Your task to perform on an android device: Clear the shopping cart on newegg.com. Add logitech g pro to the cart on newegg.com Image 0: 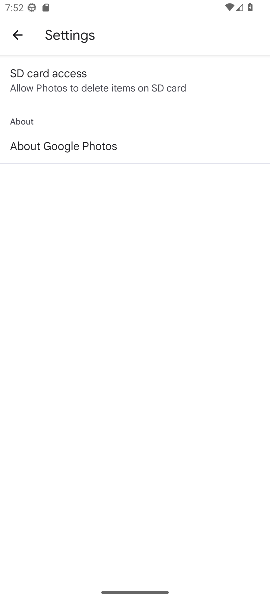
Step 0: press home button
Your task to perform on an android device: Clear the shopping cart on newegg.com. Add logitech g pro to the cart on newegg.com Image 1: 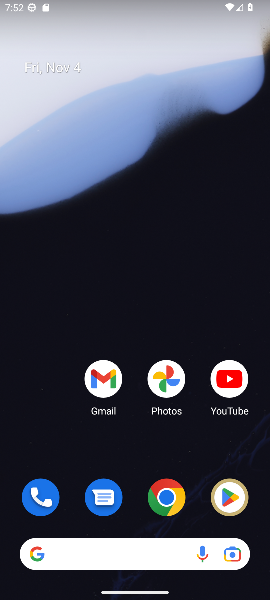
Step 1: click (172, 501)
Your task to perform on an android device: Clear the shopping cart on newegg.com. Add logitech g pro to the cart on newegg.com Image 2: 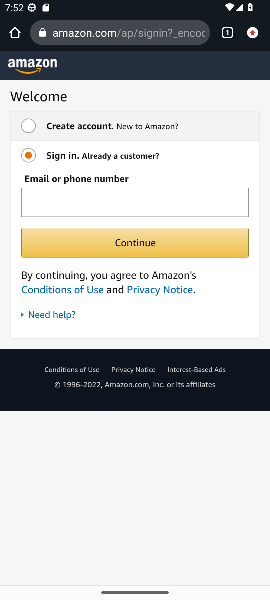
Step 2: click (81, 38)
Your task to perform on an android device: Clear the shopping cart on newegg.com. Add logitech g pro to the cart on newegg.com Image 3: 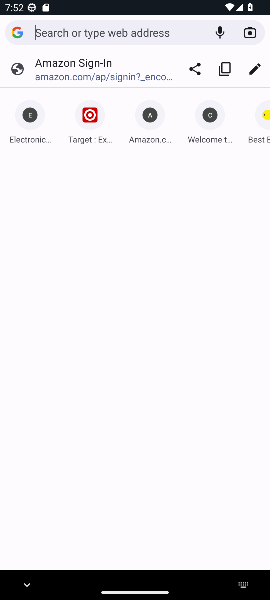
Step 3: type "newegg.com"
Your task to perform on an android device: Clear the shopping cart on newegg.com. Add logitech g pro to the cart on newegg.com Image 4: 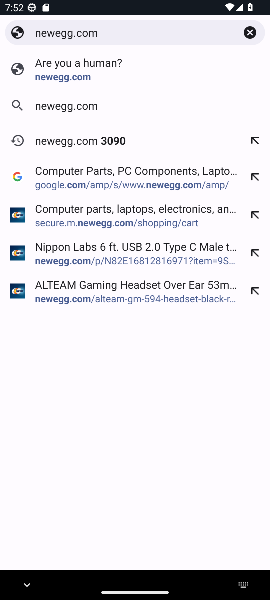
Step 4: click (59, 106)
Your task to perform on an android device: Clear the shopping cart on newegg.com. Add logitech g pro to the cart on newegg.com Image 5: 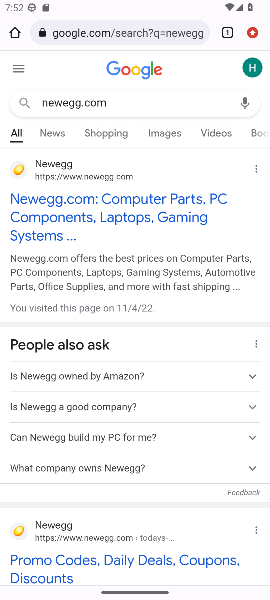
Step 5: click (86, 225)
Your task to perform on an android device: Clear the shopping cart on newegg.com. Add logitech g pro to the cart on newegg.com Image 6: 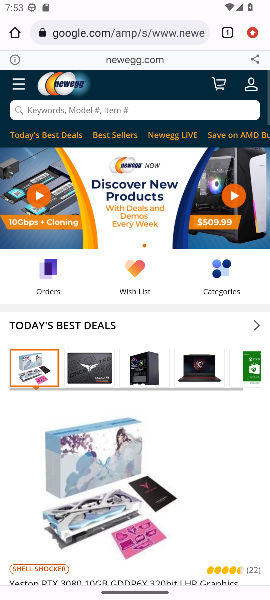
Step 6: click (86, 115)
Your task to perform on an android device: Clear the shopping cart on newegg.com. Add logitech g pro to the cart on newegg.com Image 7: 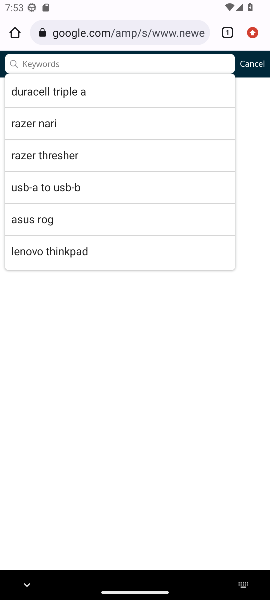
Step 7: type " logitech g pro"
Your task to perform on an android device: Clear the shopping cart on newegg.com. Add logitech g pro to the cart on newegg.com Image 8: 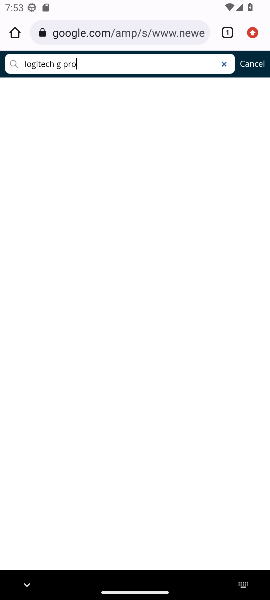
Step 8: click (17, 64)
Your task to perform on an android device: Clear the shopping cart on newegg.com. Add logitech g pro to the cart on newegg.com Image 9: 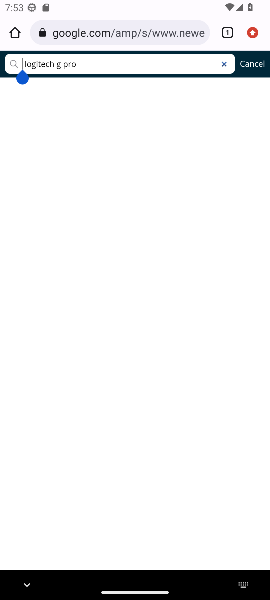
Step 9: click (254, 69)
Your task to perform on an android device: Clear the shopping cart on newegg.com. Add logitech g pro to the cart on newegg.com Image 10: 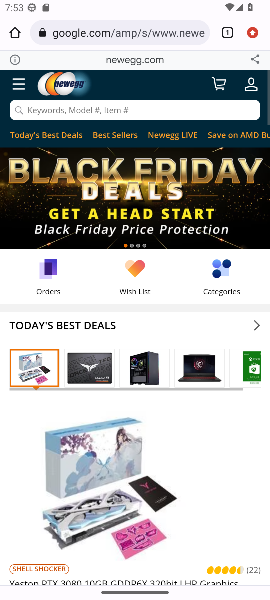
Step 10: click (178, 116)
Your task to perform on an android device: Clear the shopping cart on newegg.com. Add logitech g pro to the cart on newegg.com Image 11: 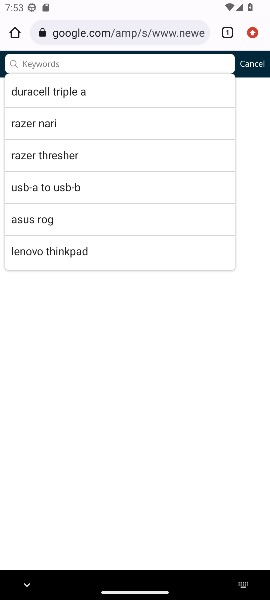
Step 11: click (70, 63)
Your task to perform on an android device: Clear the shopping cart on newegg.com. Add logitech g pro to the cart on newegg.com Image 12: 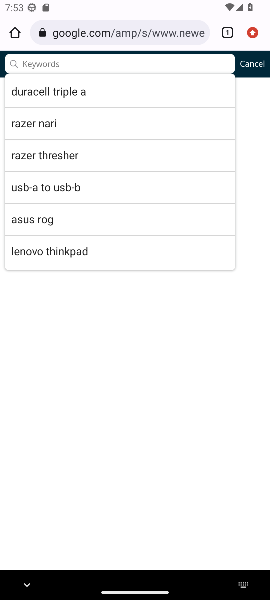
Step 12: click (268, 108)
Your task to perform on an android device: Clear the shopping cart on newegg.com. Add logitech g pro to the cart on newegg.com Image 13: 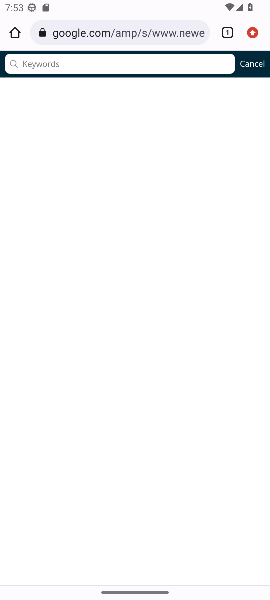
Step 13: click (244, 68)
Your task to perform on an android device: Clear the shopping cart on newegg.com. Add logitech g pro to the cart on newegg.com Image 14: 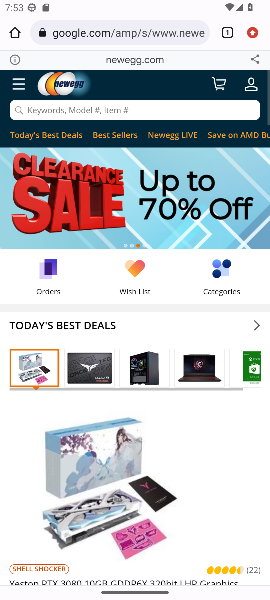
Step 14: click (228, 82)
Your task to perform on an android device: Clear the shopping cart on newegg.com. Add logitech g pro to the cart on newegg.com Image 15: 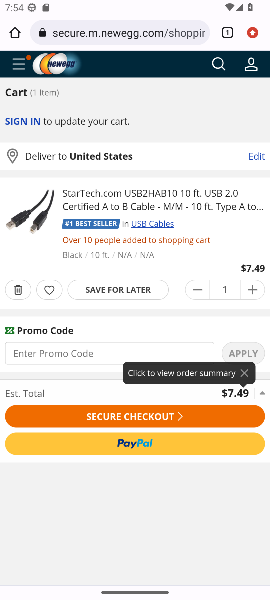
Step 15: click (15, 293)
Your task to perform on an android device: Clear the shopping cart on newegg.com. Add logitech g pro to the cart on newegg.com Image 16: 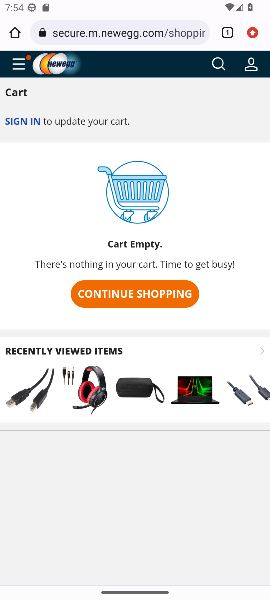
Step 16: click (211, 72)
Your task to perform on an android device: Clear the shopping cart on newegg.com. Add logitech g pro to the cart on newegg.com Image 17: 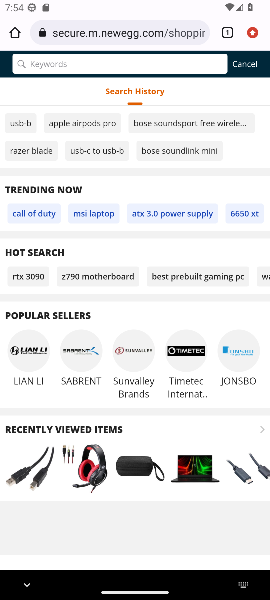
Step 17: type "logitech g pro"
Your task to perform on an android device: Clear the shopping cart on newegg.com. Add logitech g pro to the cart on newegg.com Image 18: 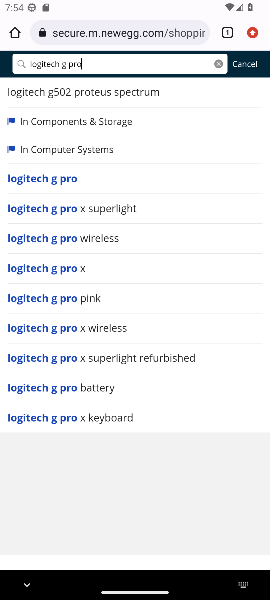
Step 18: click (53, 178)
Your task to perform on an android device: Clear the shopping cart on newegg.com. Add logitech g pro to the cart on newegg.com Image 19: 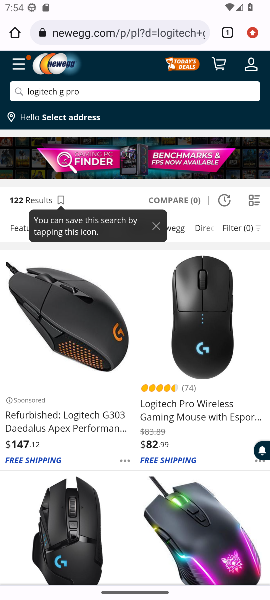
Step 19: drag from (119, 443) to (122, 268)
Your task to perform on an android device: Clear the shopping cart on newegg.com. Add logitech g pro to the cart on newegg.com Image 20: 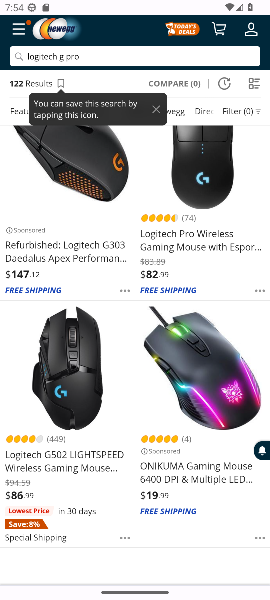
Step 20: drag from (118, 464) to (116, 310)
Your task to perform on an android device: Clear the shopping cart on newegg.com. Add logitech g pro to the cart on newegg.com Image 21: 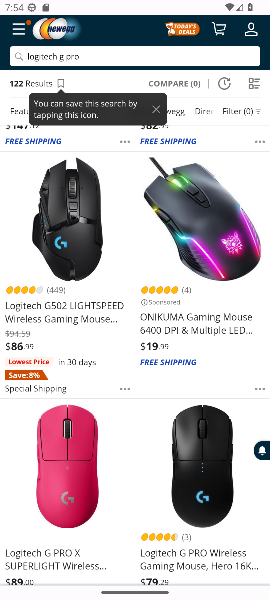
Step 21: click (52, 524)
Your task to perform on an android device: Clear the shopping cart on newegg.com. Add logitech g pro to the cart on newegg.com Image 22: 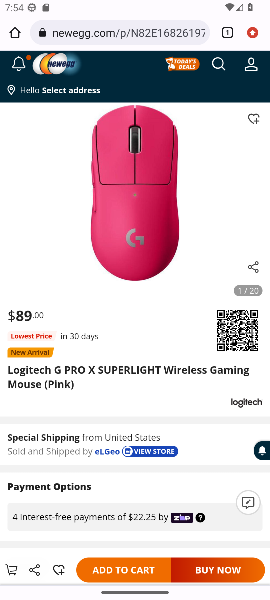
Step 22: click (111, 566)
Your task to perform on an android device: Clear the shopping cart on newegg.com. Add logitech g pro to the cart on newegg.com Image 23: 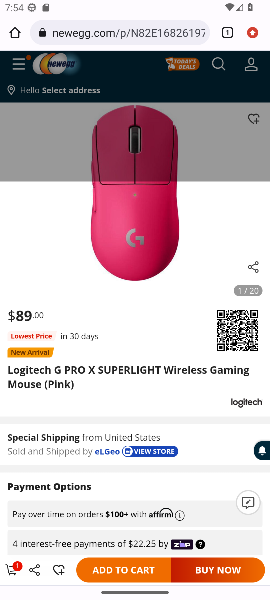
Step 23: task complete